Your task to perform on an android device: What is the recent news? Image 0: 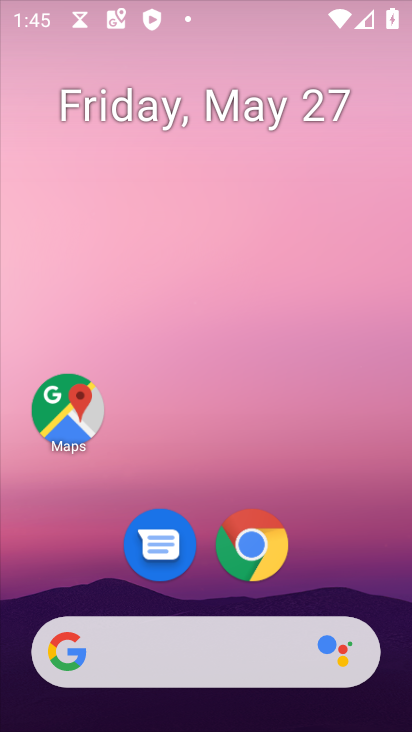
Step 0: press home button
Your task to perform on an android device: What is the recent news? Image 1: 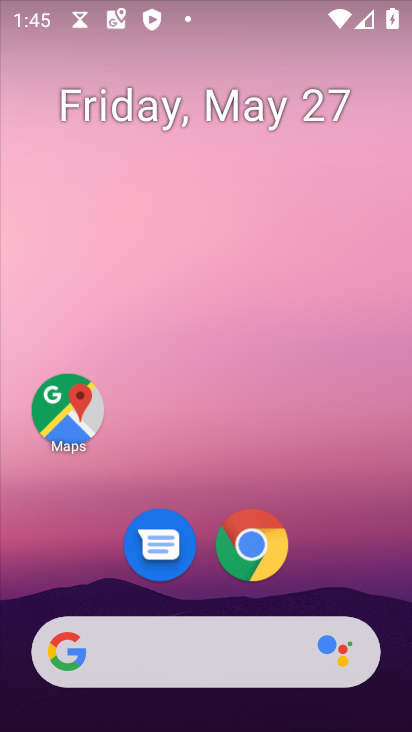
Step 1: drag from (359, 554) to (229, 16)
Your task to perform on an android device: What is the recent news? Image 2: 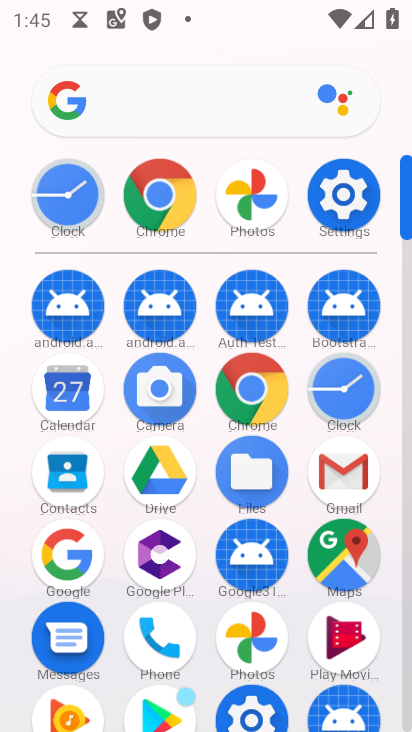
Step 2: click (77, 575)
Your task to perform on an android device: What is the recent news? Image 3: 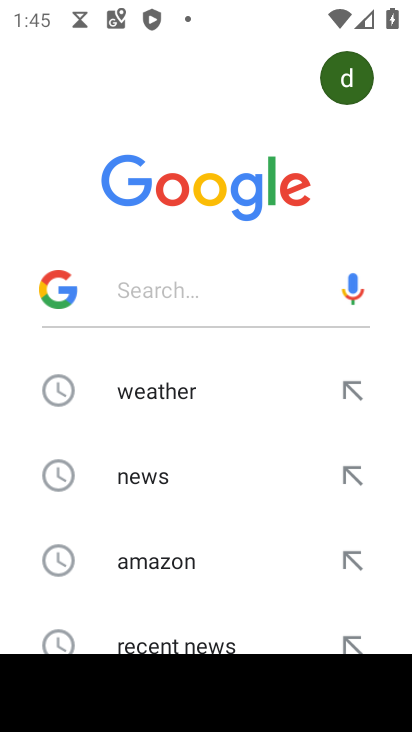
Step 3: click (170, 470)
Your task to perform on an android device: What is the recent news? Image 4: 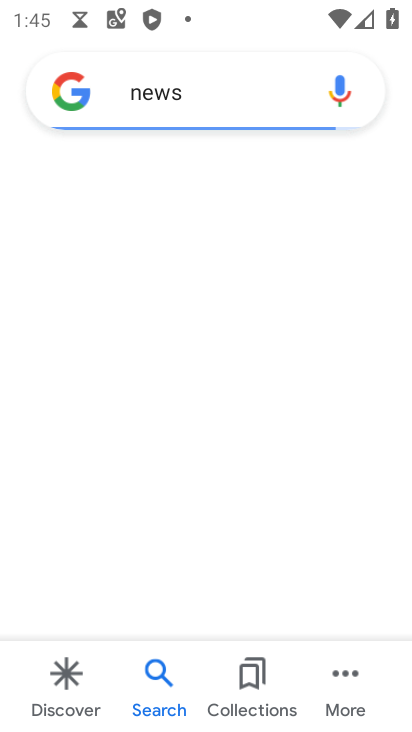
Step 4: task complete